Your task to perform on an android device: stop showing notifications on the lock screen Image 0: 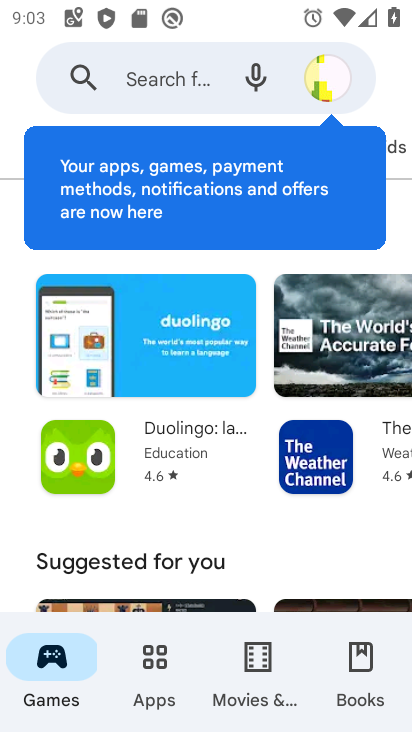
Step 0: press back button
Your task to perform on an android device: stop showing notifications on the lock screen Image 1: 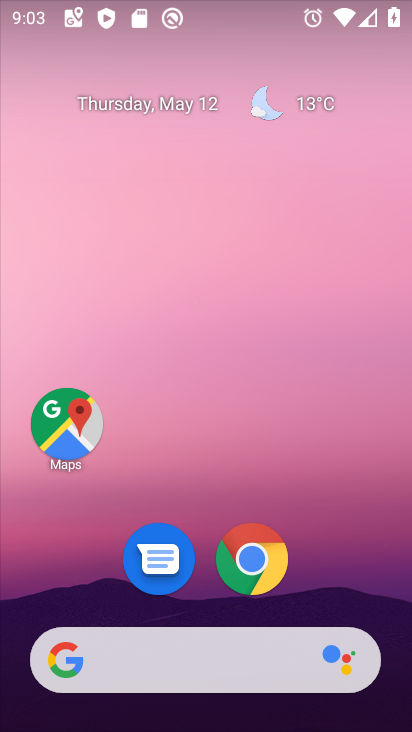
Step 1: drag from (185, 620) to (275, 122)
Your task to perform on an android device: stop showing notifications on the lock screen Image 2: 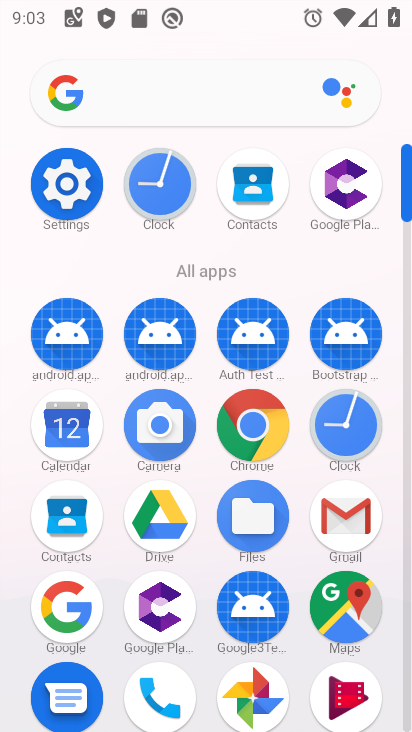
Step 2: drag from (210, 601) to (275, 348)
Your task to perform on an android device: stop showing notifications on the lock screen Image 3: 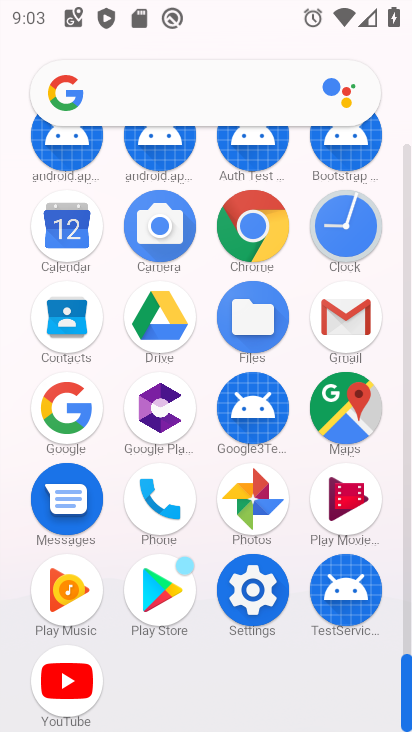
Step 3: click (240, 600)
Your task to perform on an android device: stop showing notifications on the lock screen Image 4: 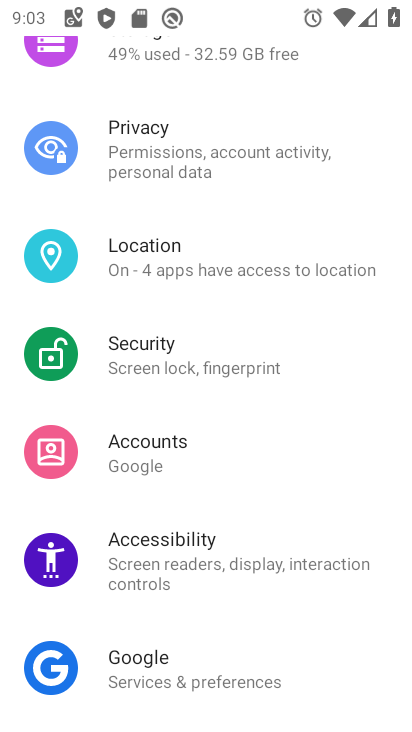
Step 4: drag from (303, 181) to (160, 608)
Your task to perform on an android device: stop showing notifications on the lock screen Image 5: 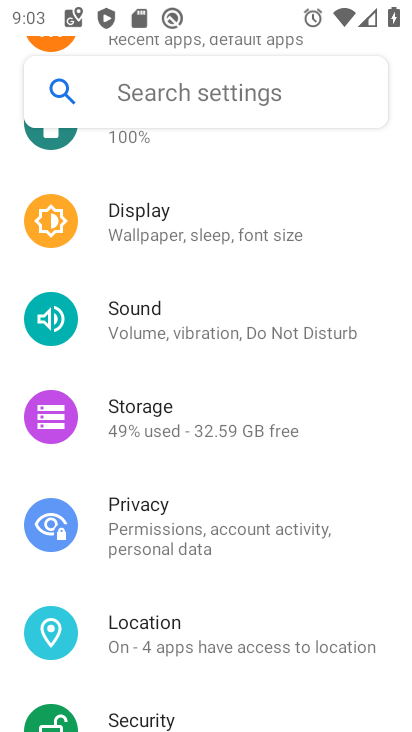
Step 5: drag from (234, 305) to (222, 550)
Your task to perform on an android device: stop showing notifications on the lock screen Image 6: 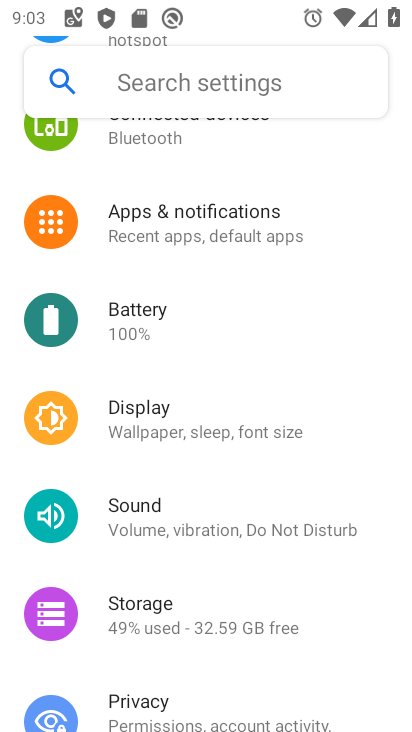
Step 6: click (242, 249)
Your task to perform on an android device: stop showing notifications on the lock screen Image 7: 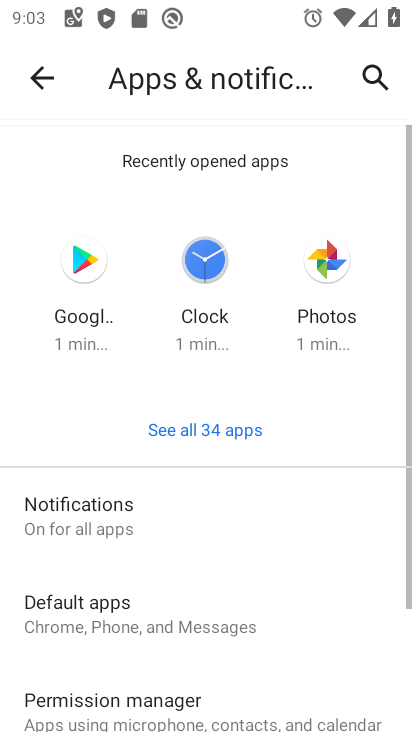
Step 7: click (198, 503)
Your task to perform on an android device: stop showing notifications on the lock screen Image 8: 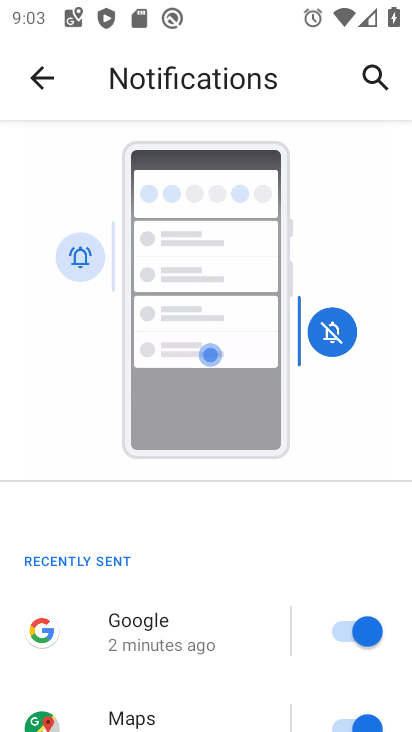
Step 8: drag from (224, 590) to (404, 125)
Your task to perform on an android device: stop showing notifications on the lock screen Image 9: 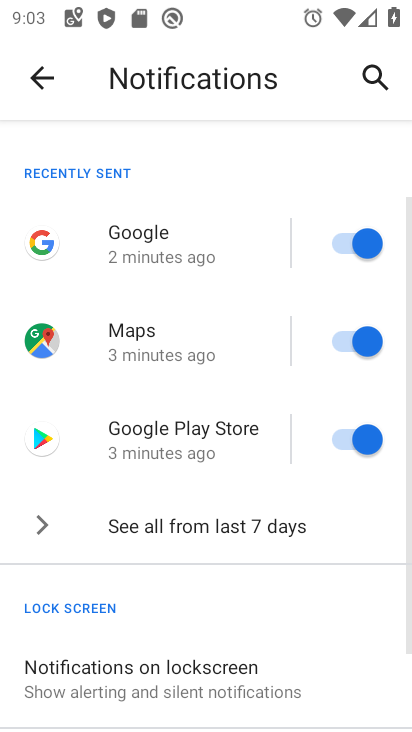
Step 9: drag from (210, 615) to (323, 268)
Your task to perform on an android device: stop showing notifications on the lock screen Image 10: 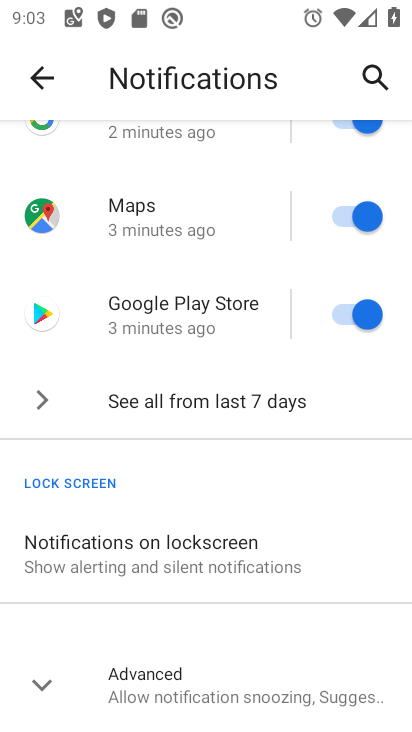
Step 10: click (246, 568)
Your task to perform on an android device: stop showing notifications on the lock screen Image 11: 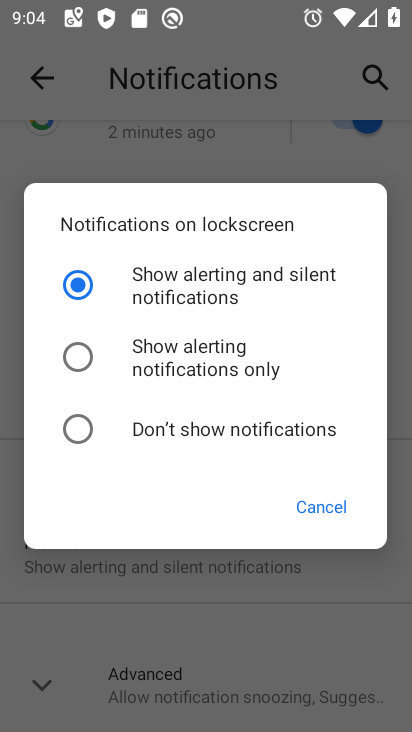
Step 11: click (205, 441)
Your task to perform on an android device: stop showing notifications on the lock screen Image 12: 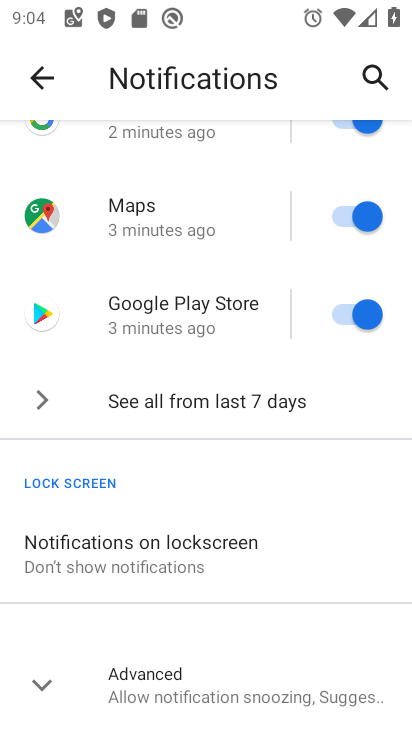
Step 12: task complete